Your task to perform on an android device: Open accessibility settings Image 0: 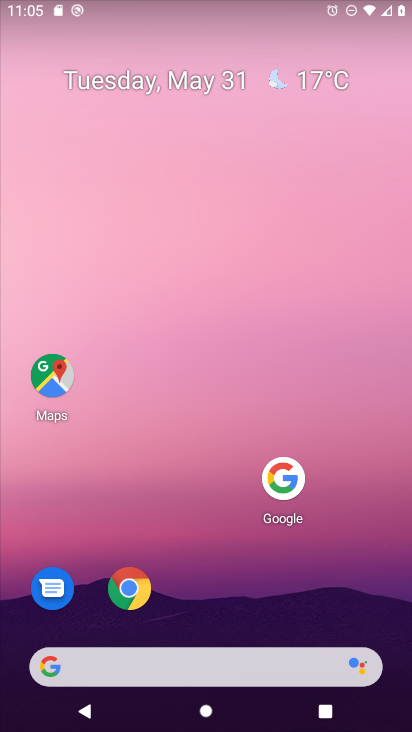
Step 0: drag from (221, 625) to (284, 87)
Your task to perform on an android device: Open accessibility settings Image 1: 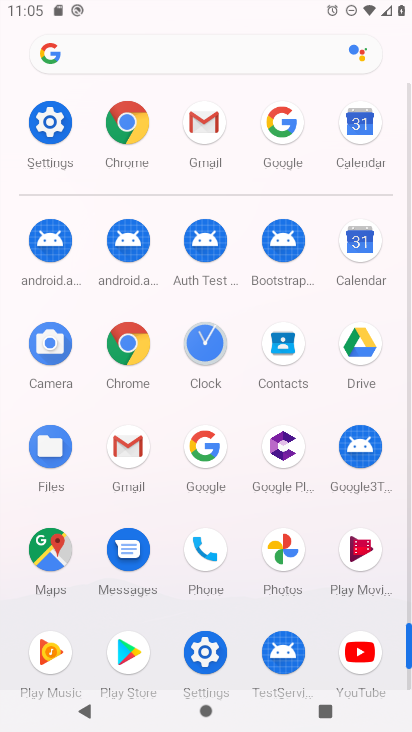
Step 1: click (52, 130)
Your task to perform on an android device: Open accessibility settings Image 2: 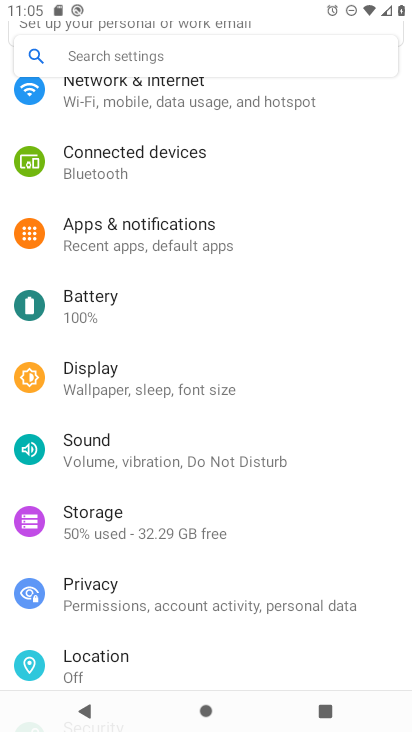
Step 2: drag from (247, 550) to (333, 91)
Your task to perform on an android device: Open accessibility settings Image 3: 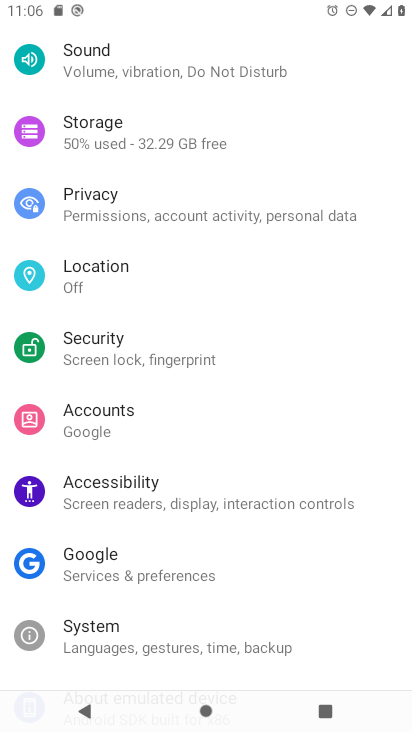
Step 3: click (115, 495)
Your task to perform on an android device: Open accessibility settings Image 4: 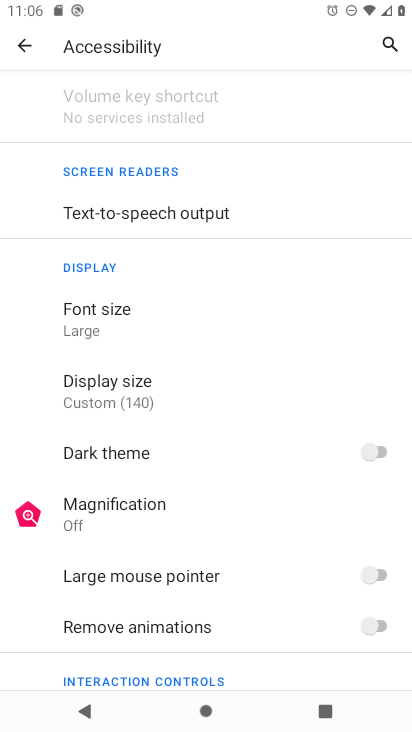
Step 4: task complete